Your task to perform on an android device: turn on priority inbox in the gmail app Image 0: 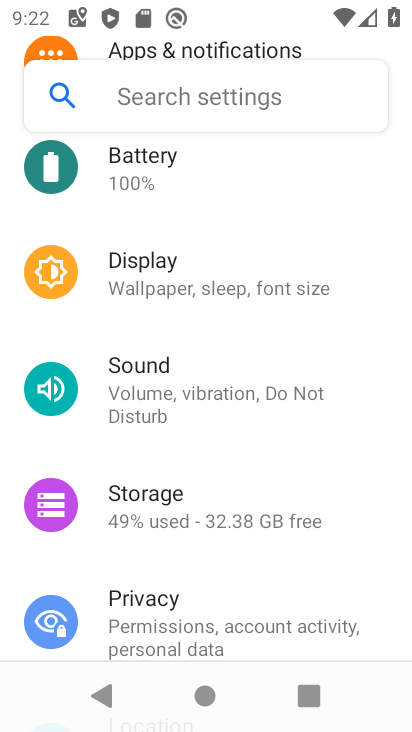
Step 0: press home button
Your task to perform on an android device: turn on priority inbox in the gmail app Image 1: 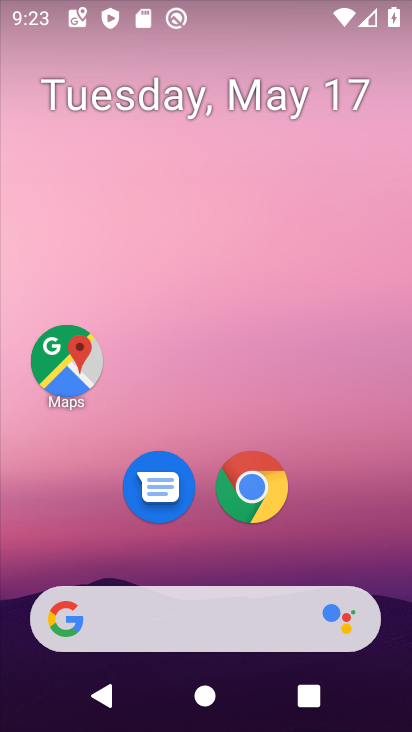
Step 1: drag from (271, 645) to (93, 152)
Your task to perform on an android device: turn on priority inbox in the gmail app Image 2: 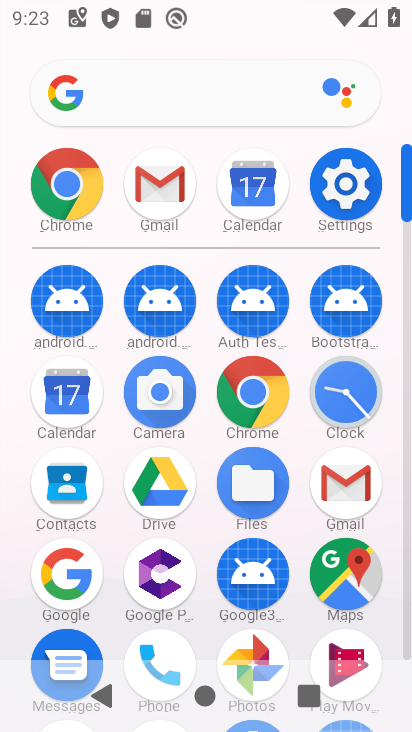
Step 2: click (151, 222)
Your task to perform on an android device: turn on priority inbox in the gmail app Image 3: 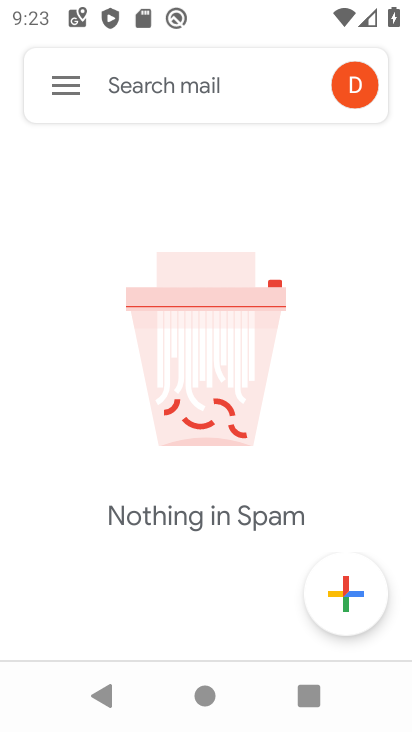
Step 3: click (79, 74)
Your task to perform on an android device: turn on priority inbox in the gmail app Image 4: 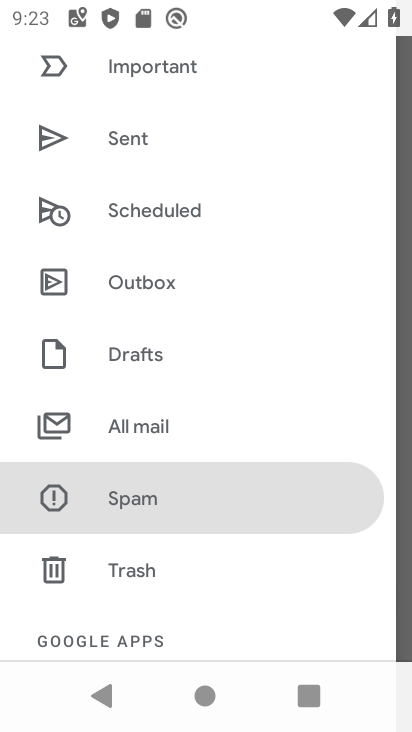
Step 4: drag from (271, 497) to (182, 302)
Your task to perform on an android device: turn on priority inbox in the gmail app Image 5: 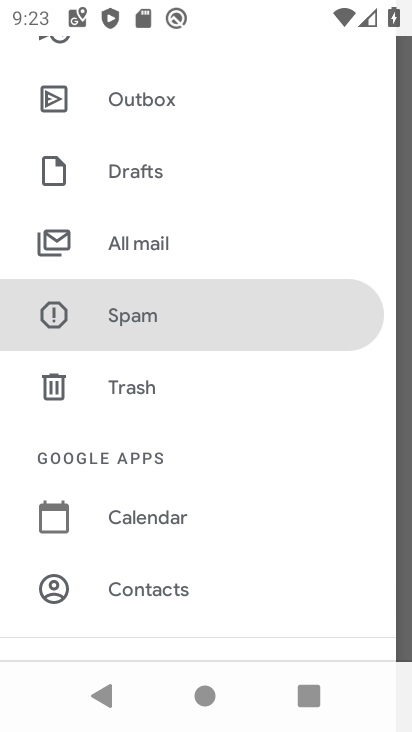
Step 5: drag from (240, 511) to (166, 283)
Your task to perform on an android device: turn on priority inbox in the gmail app Image 6: 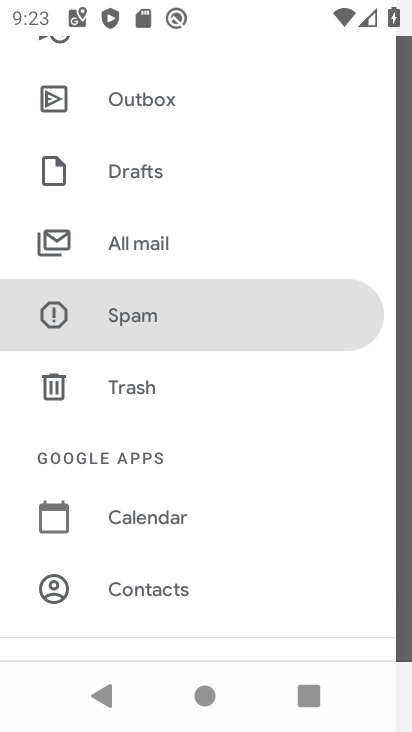
Step 6: drag from (178, 565) to (185, 364)
Your task to perform on an android device: turn on priority inbox in the gmail app Image 7: 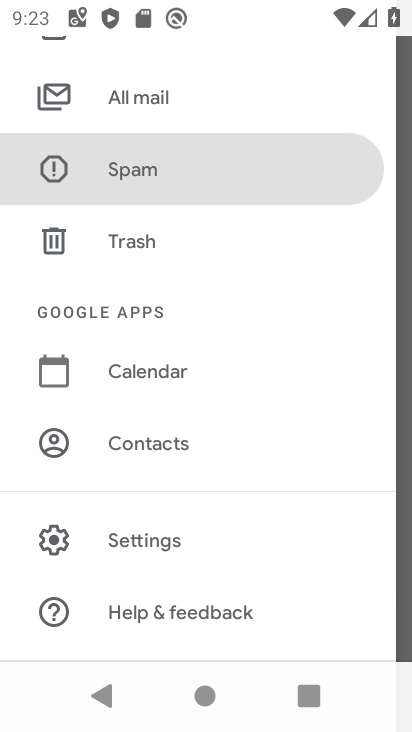
Step 7: click (161, 536)
Your task to perform on an android device: turn on priority inbox in the gmail app Image 8: 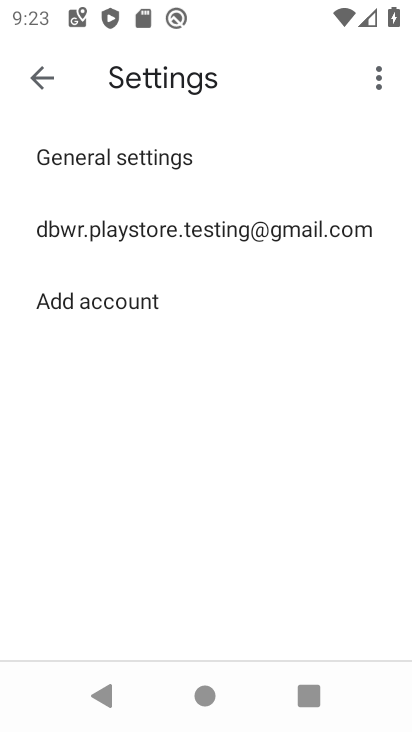
Step 8: click (107, 240)
Your task to perform on an android device: turn on priority inbox in the gmail app Image 9: 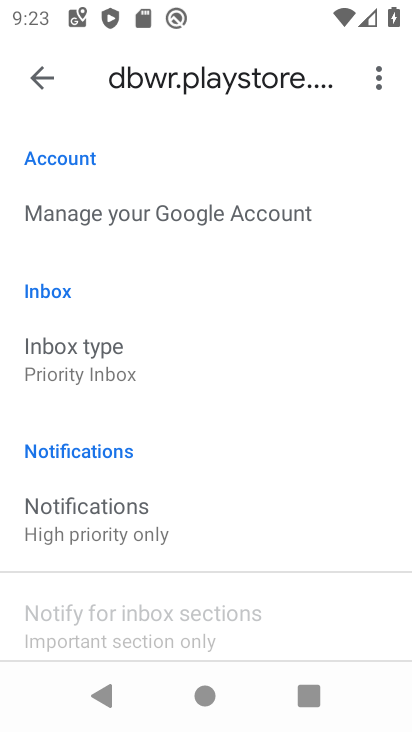
Step 9: click (158, 355)
Your task to perform on an android device: turn on priority inbox in the gmail app Image 10: 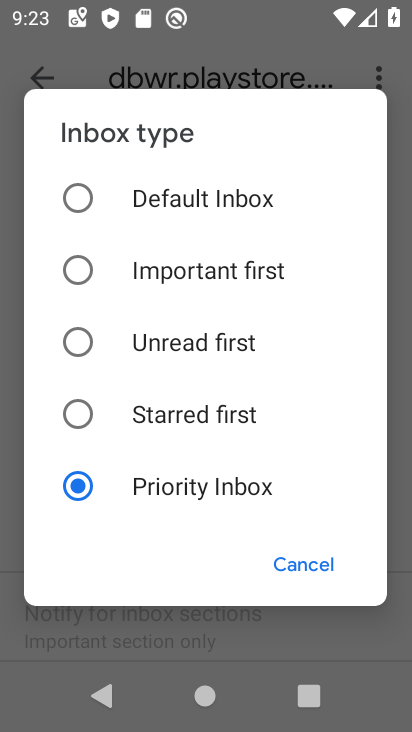
Step 10: task complete